Your task to perform on an android device: install app "Adobe Express: Graphic Design" Image 0: 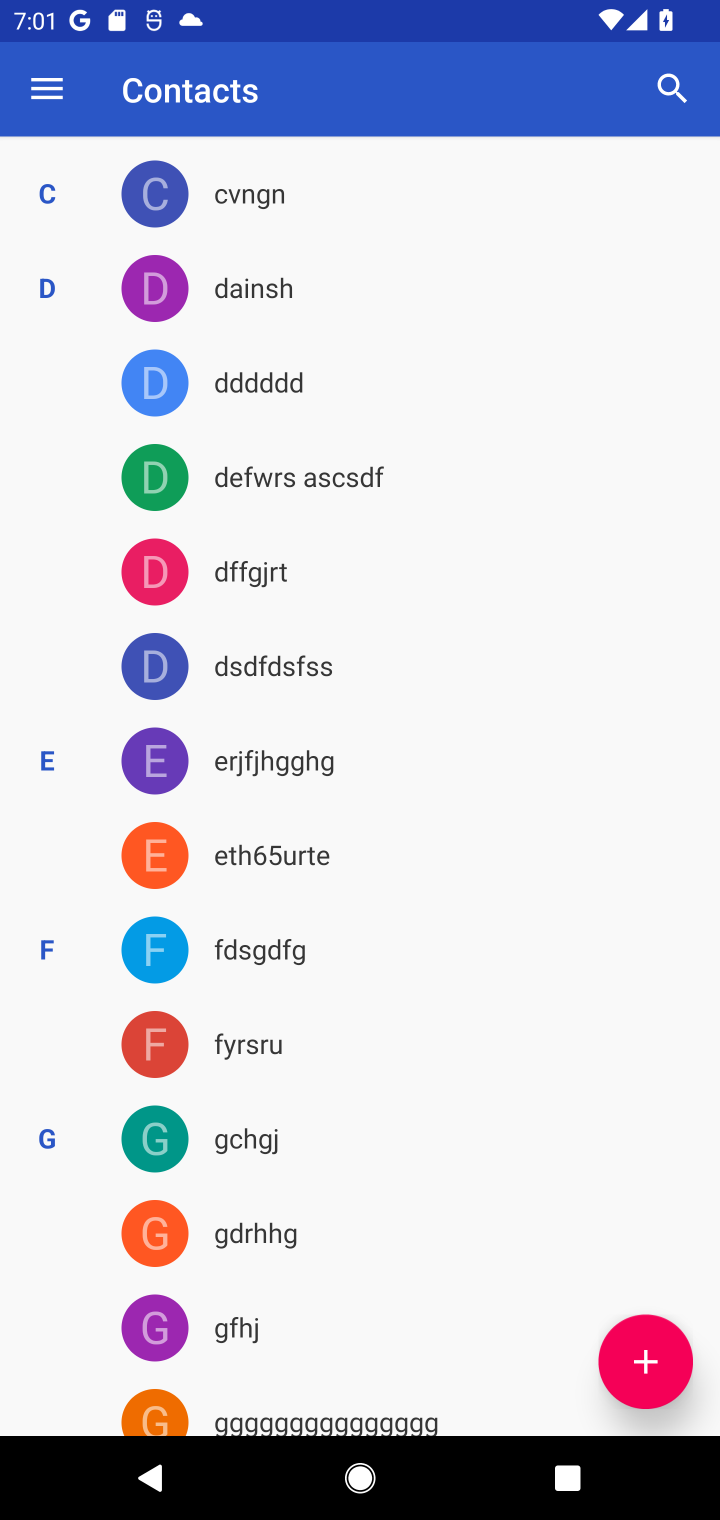
Step 0: press home button
Your task to perform on an android device: install app "Adobe Express: Graphic Design" Image 1: 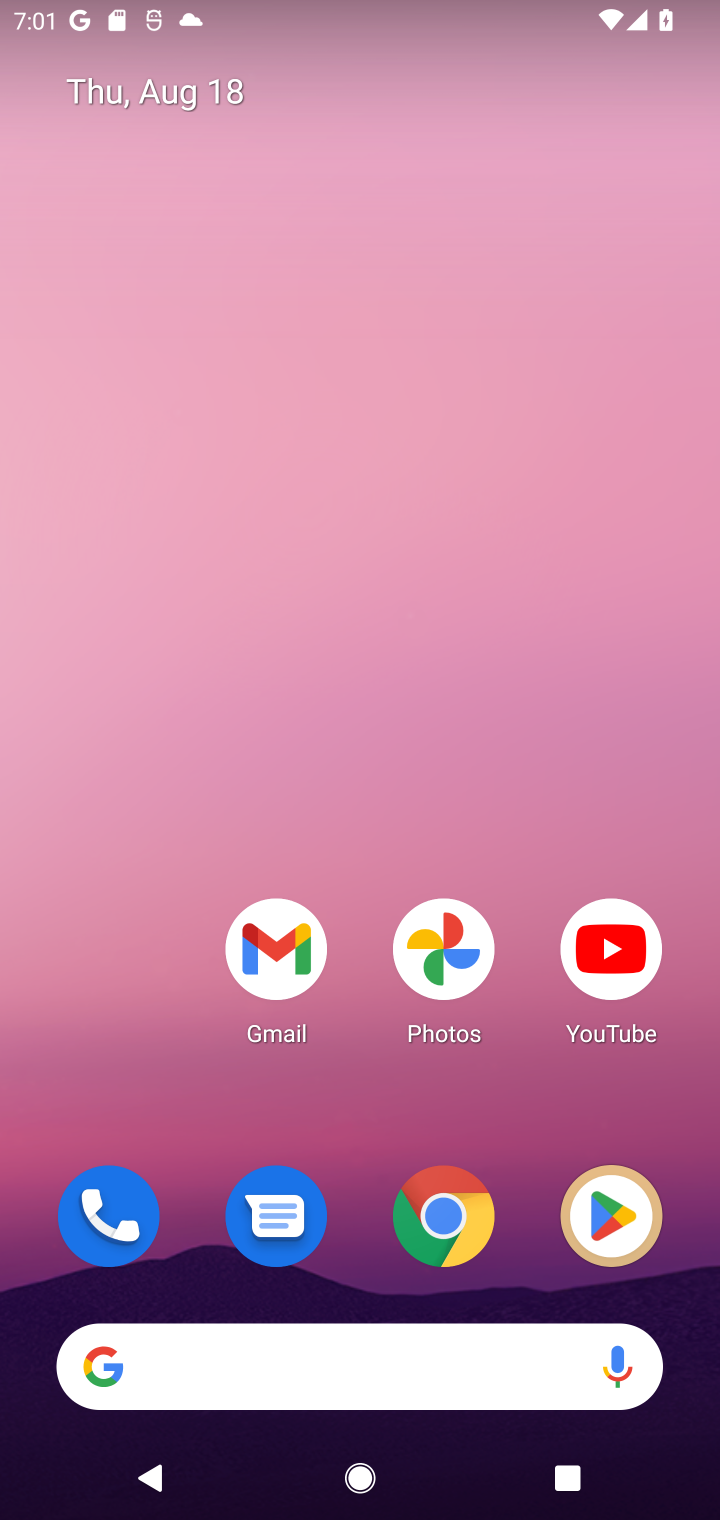
Step 1: click (622, 1215)
Your task to perform on an android device: install app "Adobe Express: Graphic Design" Image 2: 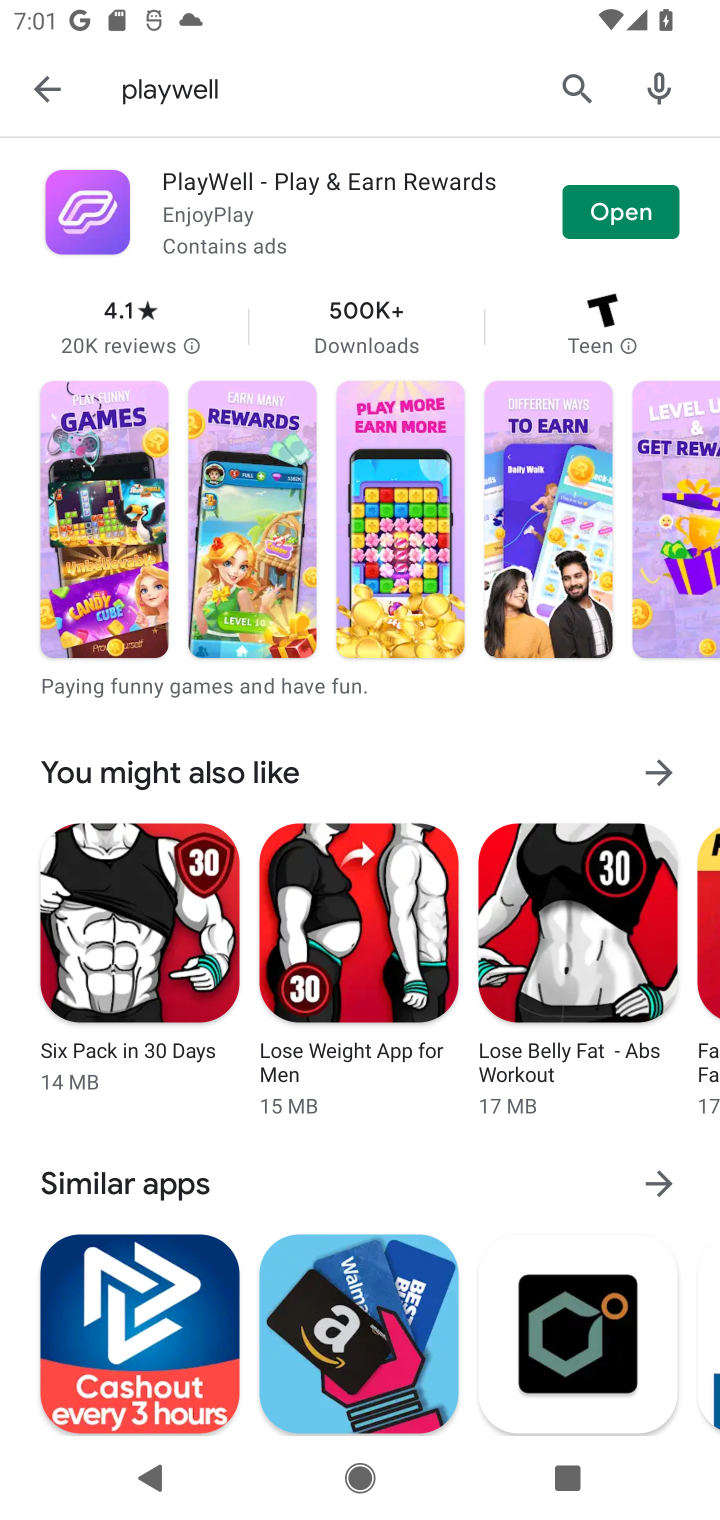
Step 2: click (562, 71)
Your task to perform on an android device: install app "Adobe Express: Graphic Design" Image 3: 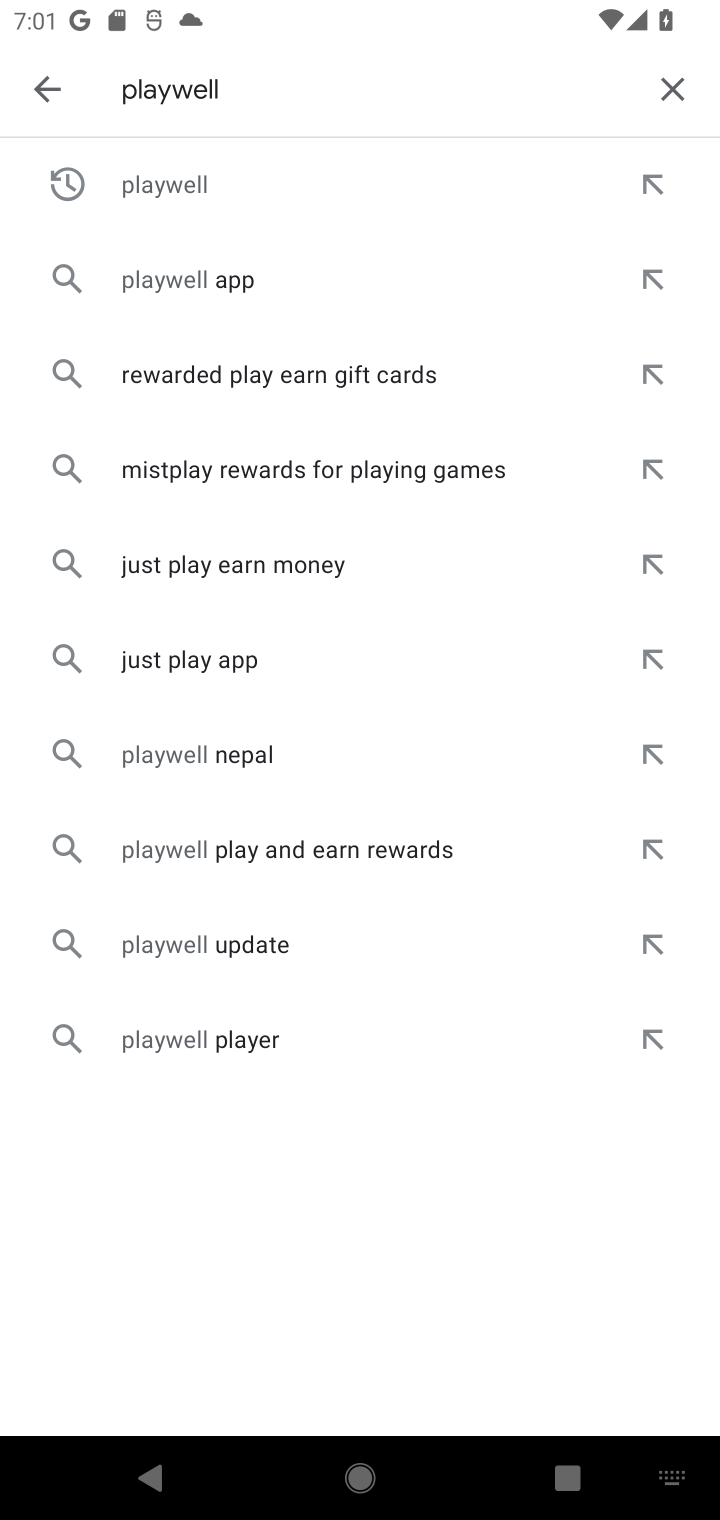
Step 3: click (669, 84)
Your task to perform on an android device: install app "Adobe Express: Graphic Design" Image 4: 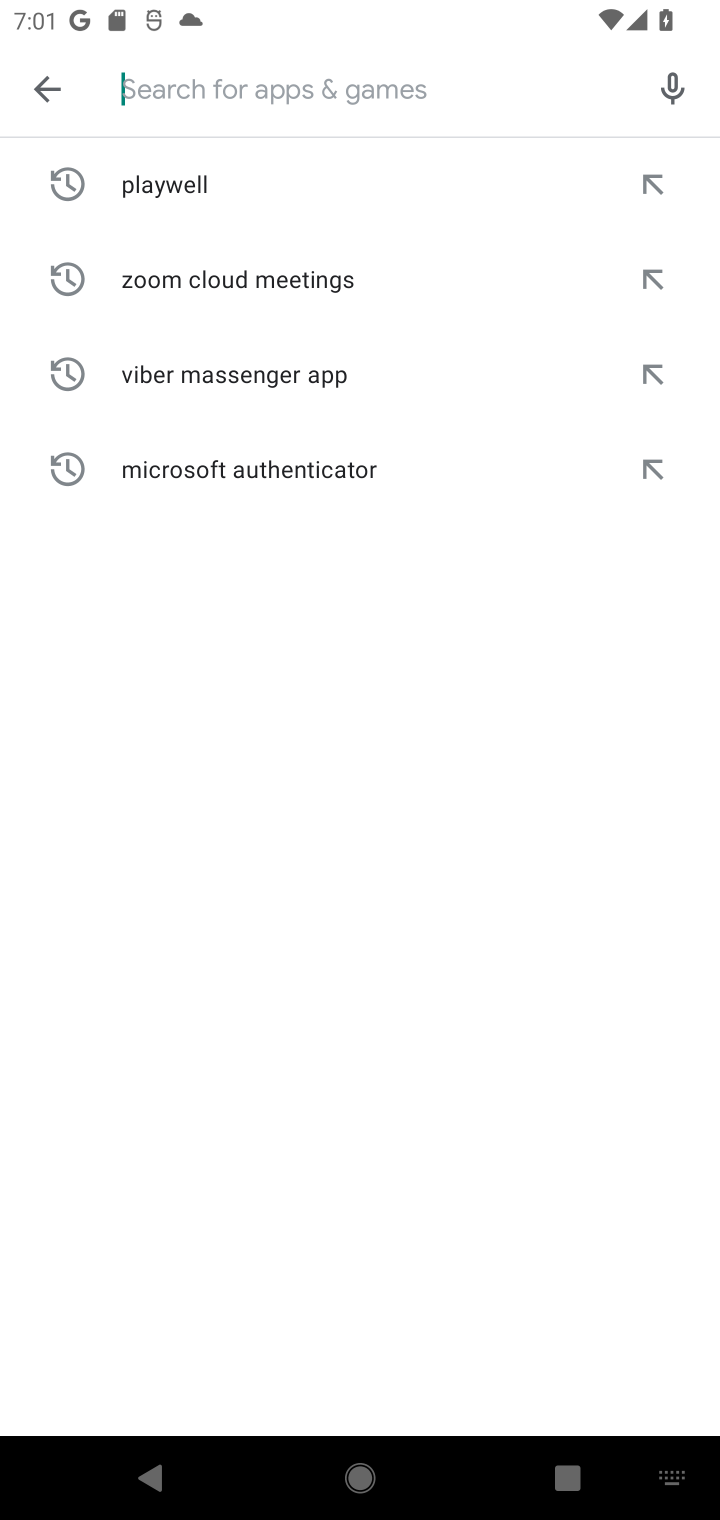
Step 4: type "Adobe Express: Graphic Design"
Your task to perform on an android device: install app "Adobe Express: Graphic Design" Image 5: 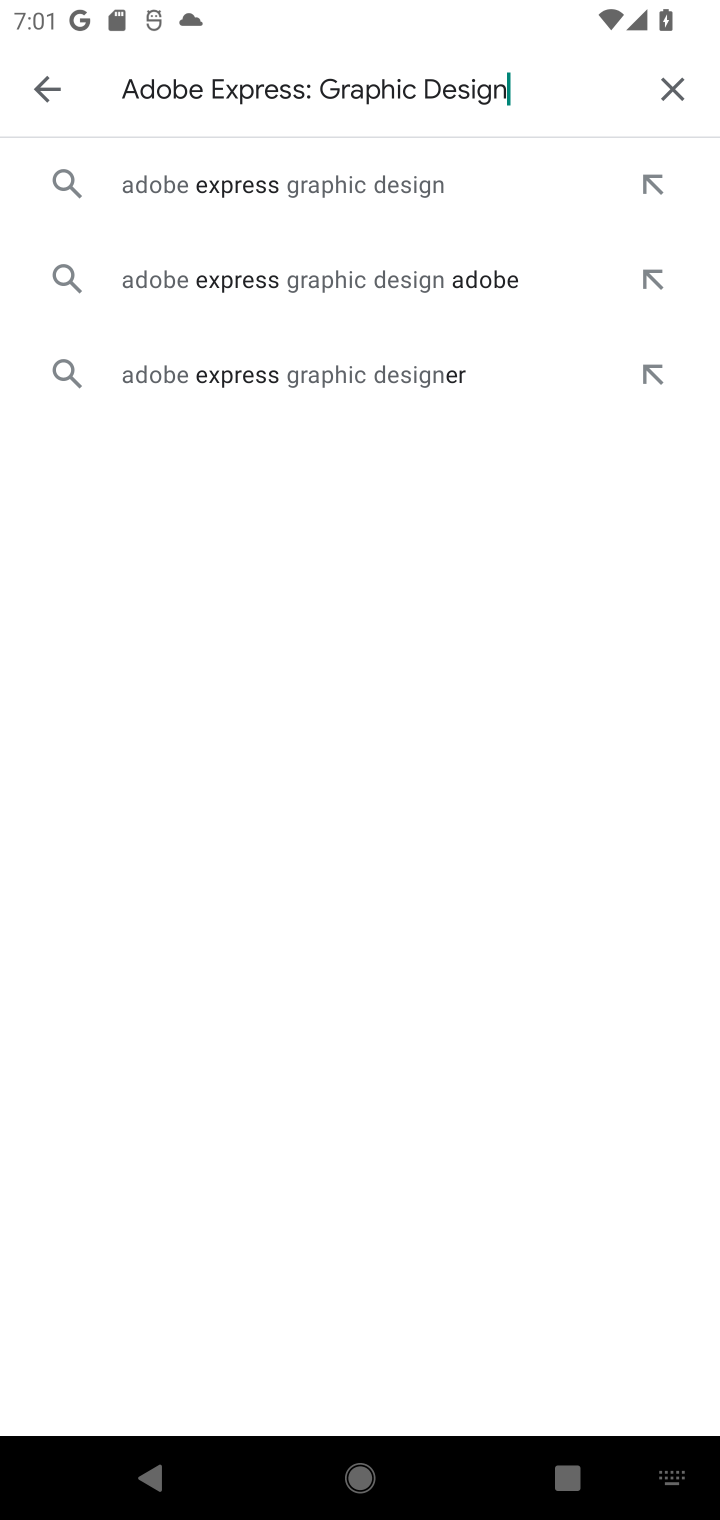
Step 5: click (287, 179)
Your task to perform on an android device: install app "Adobe Express: Graphic Design" Image 6: 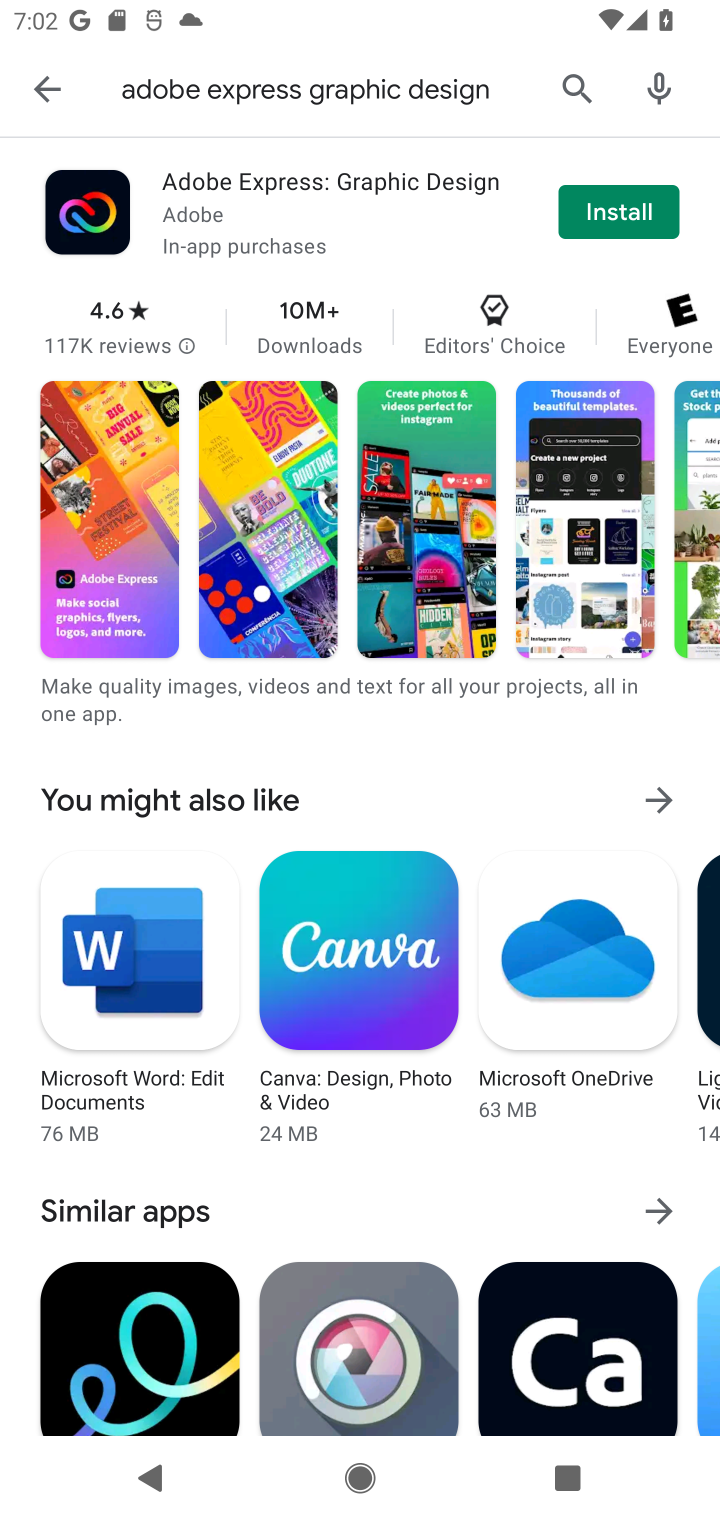
Step 6: click (622, 209)
Your task to perform on an android device: install app "Adobe Express: Graphic Design" Image 7: 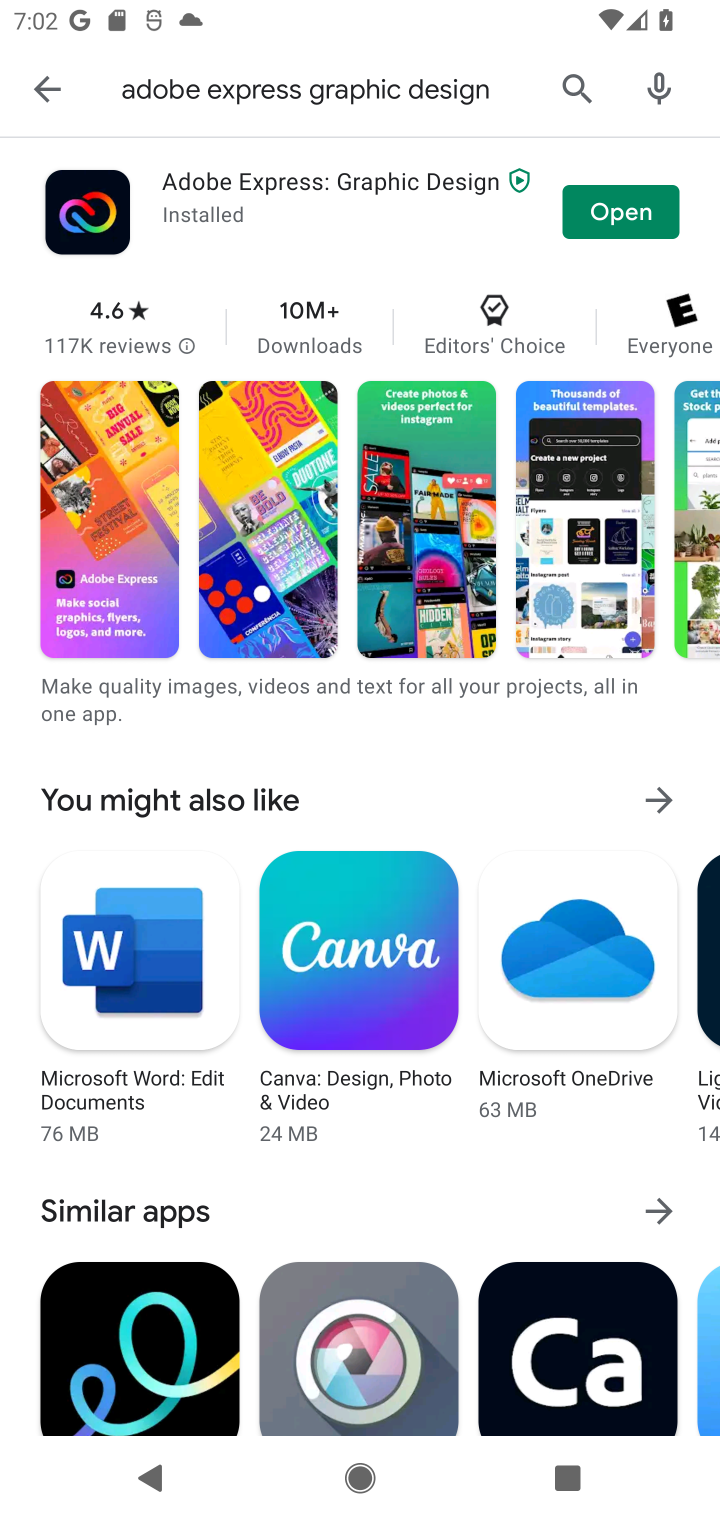
Step 7: task complete